Your task to perform on an android device: star an email in the gmail app Image 0: 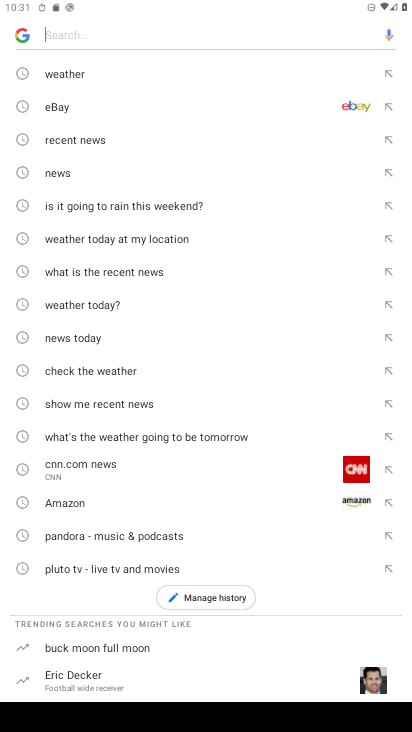
Step 0: press home button
Your task to perform on an android device: star an email in the gmail app Image 1: 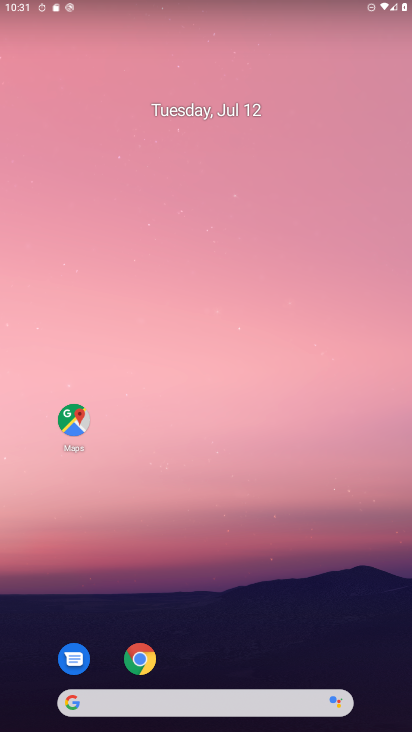
Step 1: drag from (223, 728) to (244, 58)
Your task to perform on an android device: star an email in the gmail app Image 2: 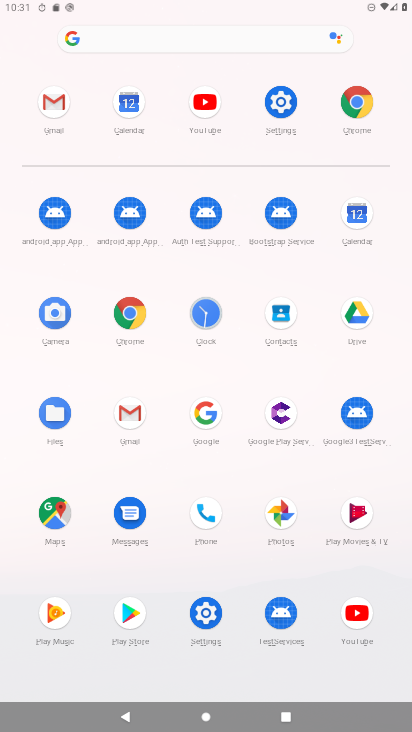
Step 2: click (132, 414)
Your task to perform on an android device: star an email in the gmail app Image 3: 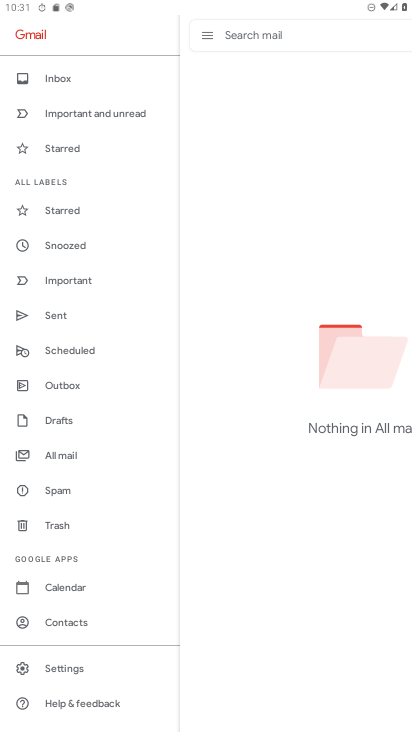
Step 3: click (68, 77)
Your task to perform on an android device: star an email in the gmail app Image 4: 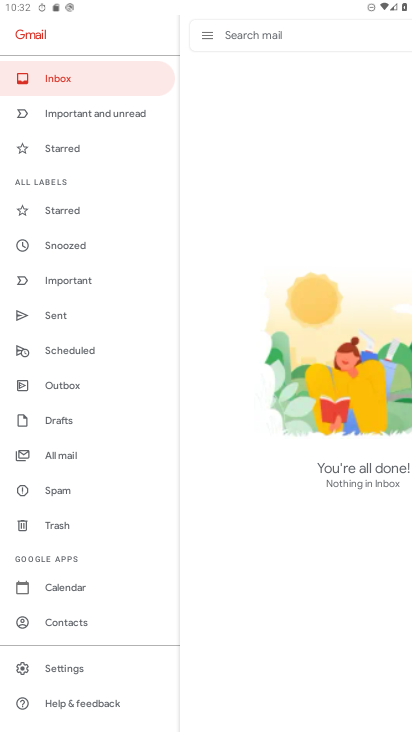
Step 4: task complete